Your task to perform on an android device: turn off priority inbox in the gmail app Image 0: 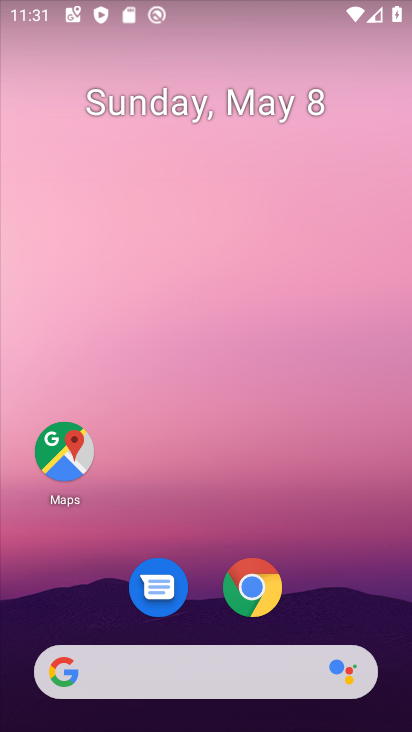
Step 0: drag from (338, 611) to (88, 242)
Your task to perform on an android device: turn off priority inbox in the gmail app Image 1: 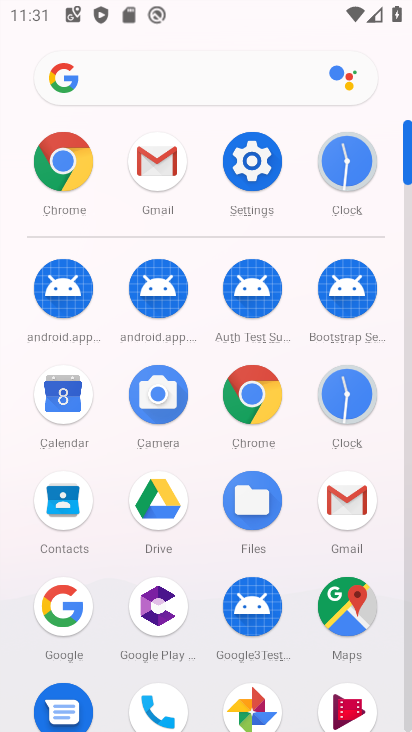
Step 1: click (334, 486)
Your task to perform on an android device: turn off priority inbox in the gmail app Image 2: 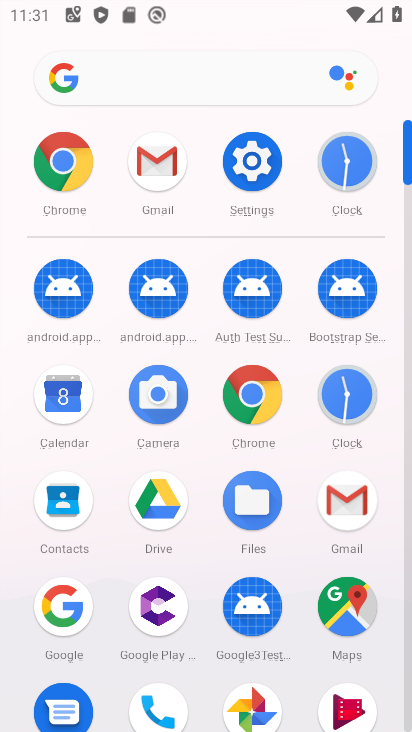
Step 2: click (333, 487)
Your task to perform on an android device: turn off priority inbox in the gmail app Image 3: 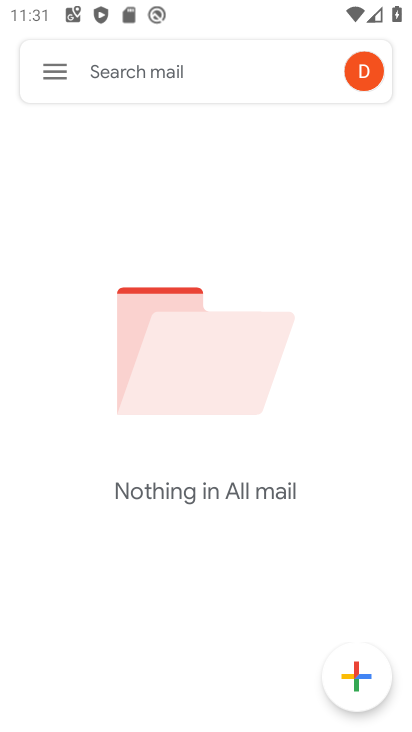
Step 3: click (46, 72)
Your task to perform on an android device: turn off priority inbox in the gmail app Image 4: 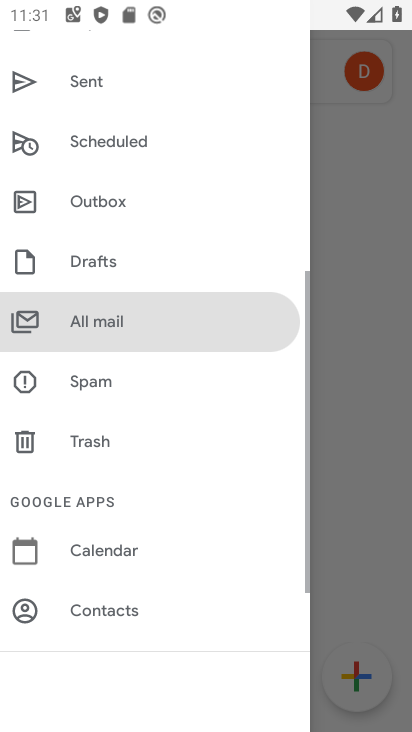
Step 4: click (46, 72)
Your task to perform on an android device: turn off priority inbox in the gmail app Image 5: 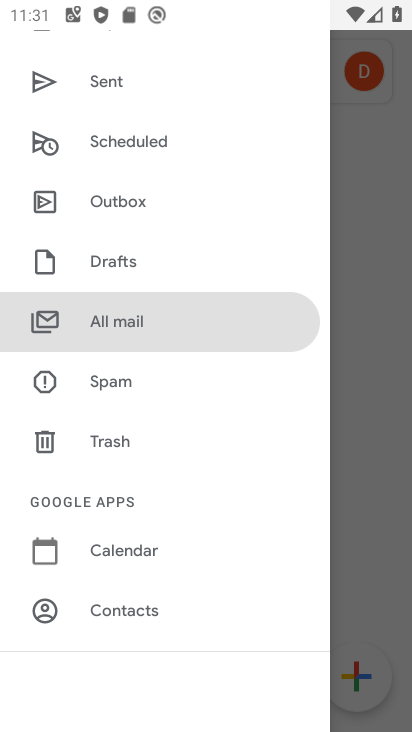
Step 5: click (128, 323)
Your task to perform on an android device: turn off priority inbox in the gmail app Image 6: 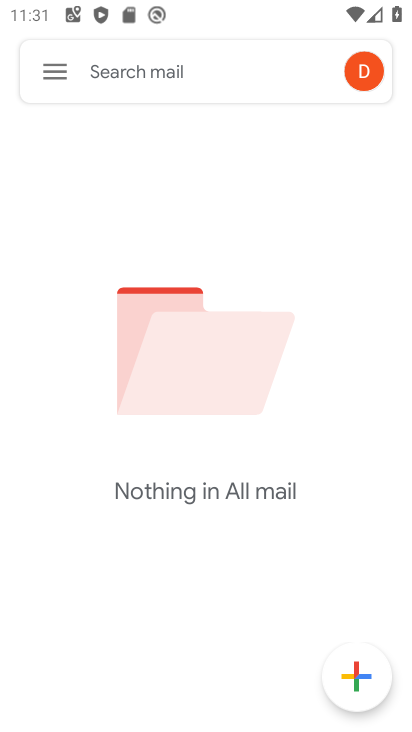
Step 6: click (63, 72)
Your task to perform on an android device: turn off priority inbox in the gmail app Image 7: 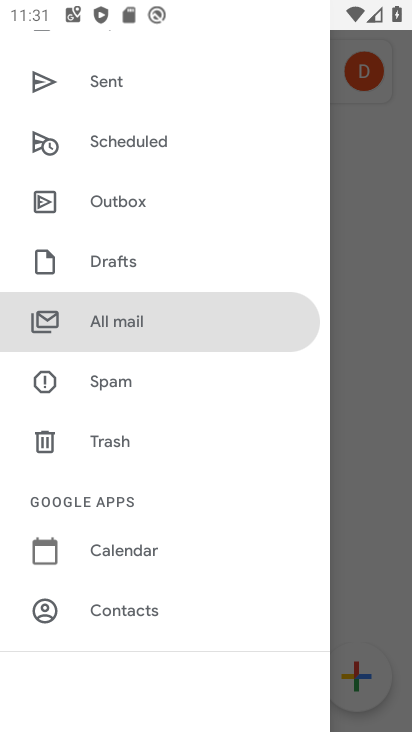
Step 7: drag from (131, 616) to (107, 174)
Your task to perform on an android device: turn off priority inbox in the gmail app Image 8: 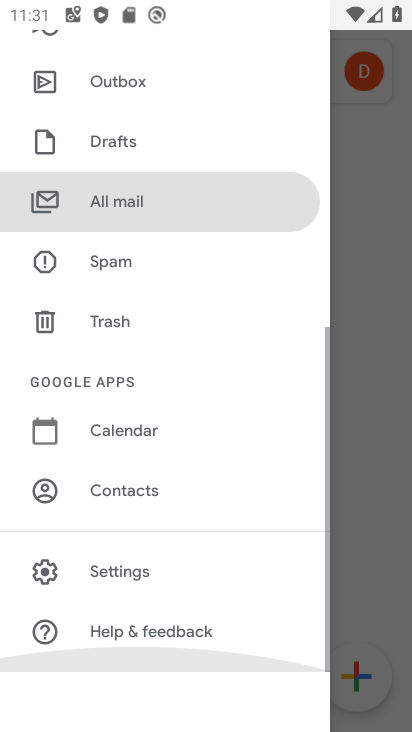
Step 8: drag from (297, 598) to (217, 138)
Your task to perform on an android device: turn off priority inbox in the gmail app Image 9: 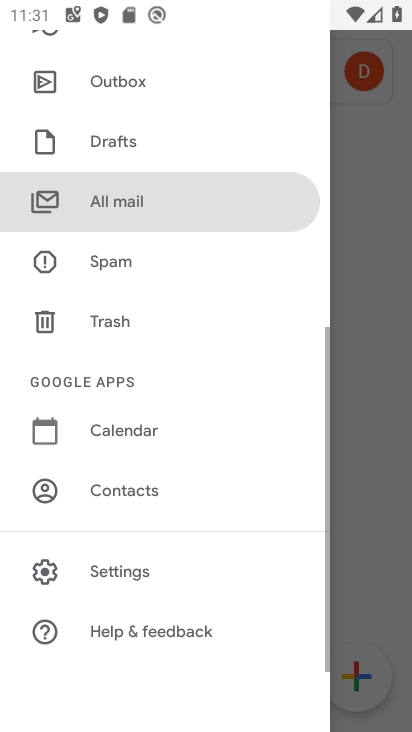
Step 9: click (138, 580)
Your task to perform on an android device: turn off priority inbox in the gmail app Image 10: 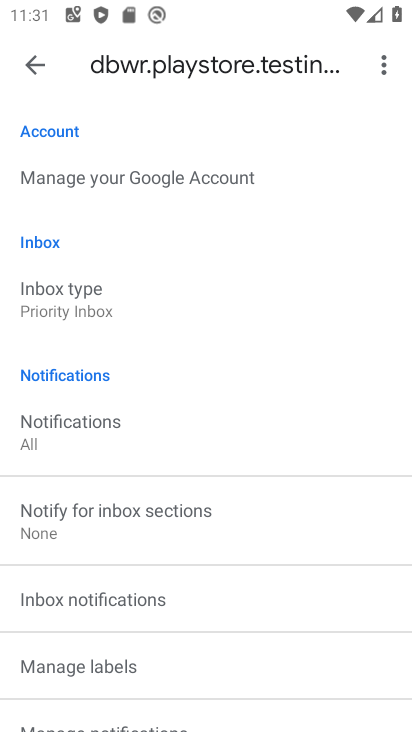
Step 10: click (73, 294)
Your task to perform on an android device: turn off priority inbox in the gmail app Image 11: 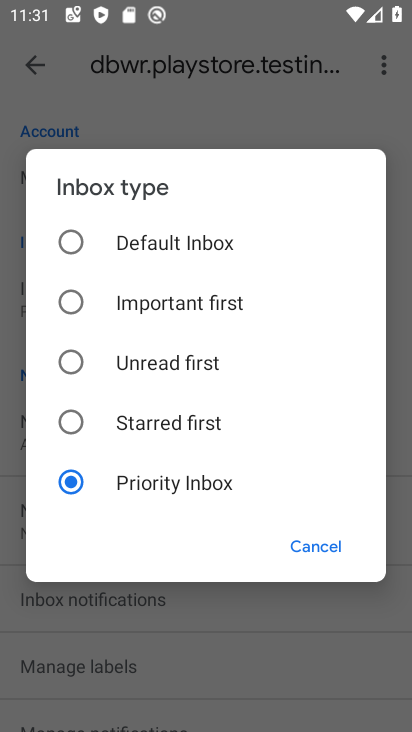
Step 11: click (77, 421)
Your task to perform on an android device: turn off priority inbox in the gmail app Image 12: 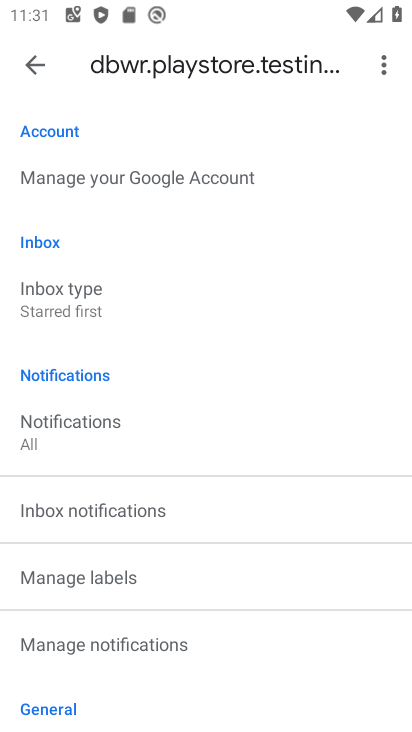
Step 12: task complete